Your task to perform on an android device: snooze an email in the gmail app Image 0: 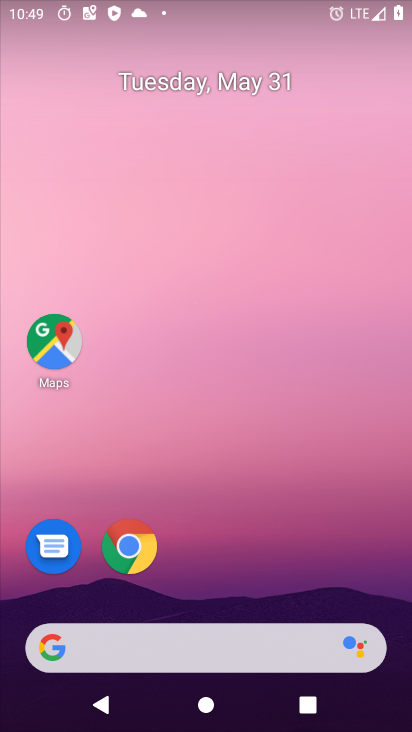
Step 0: drag from (253, 557) to (233, 292)
Your task to perform on an android device: snooze an email in the gmail app Image 1: 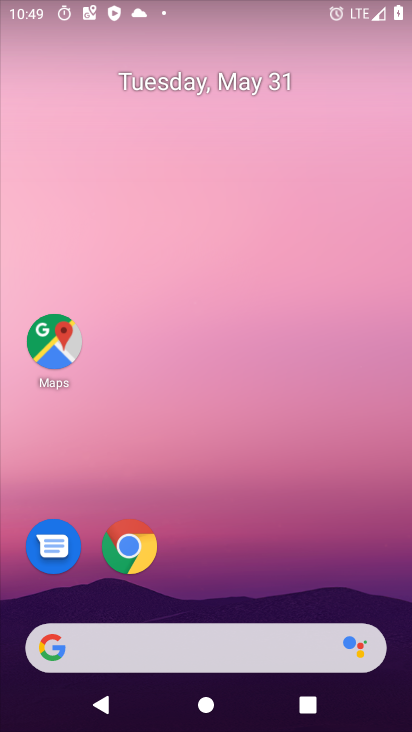
Step 1: drag from (310, 551) to (360, 134)
Your task to perform on an android device: snooze an email in the gmail app Image 2: 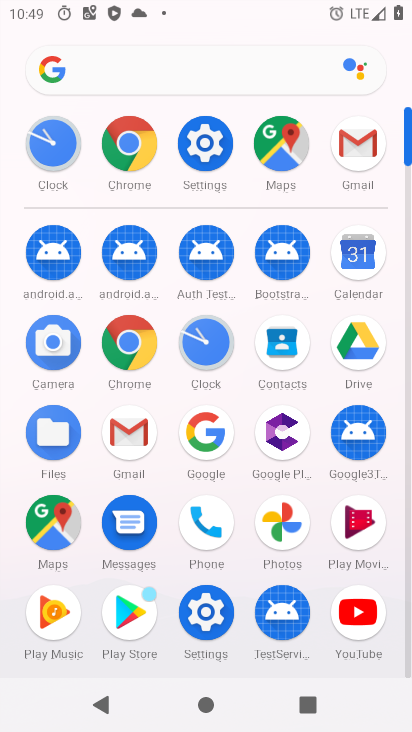
Step 2: click (357, 151)
Your task to perform on an android device: snooze an email in the gmail app Image 3: 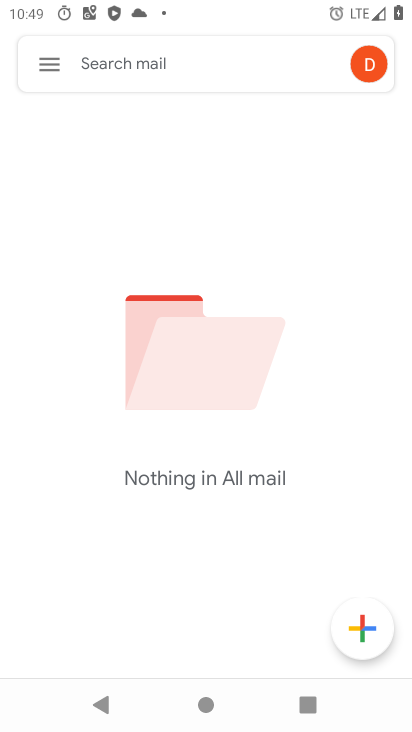
Step 3: click (62, 57)
Your task to perform on an android device: snooze an email in the gmail app Image 4: 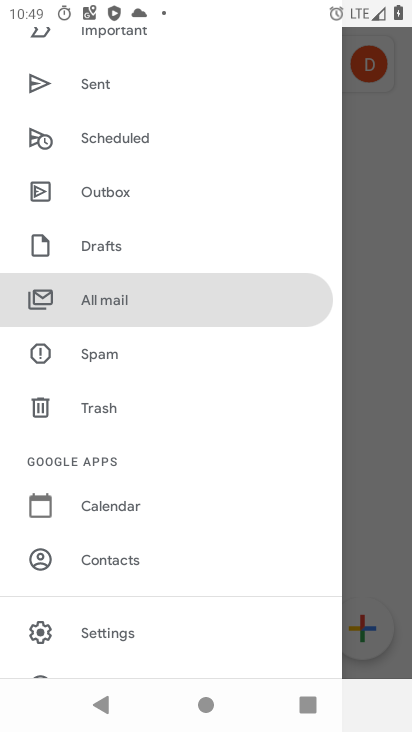
Step 4: drag from (133, 73) to (115, 505)
Your task to perform on an android device: snooze an email in the gmail app Image 5: 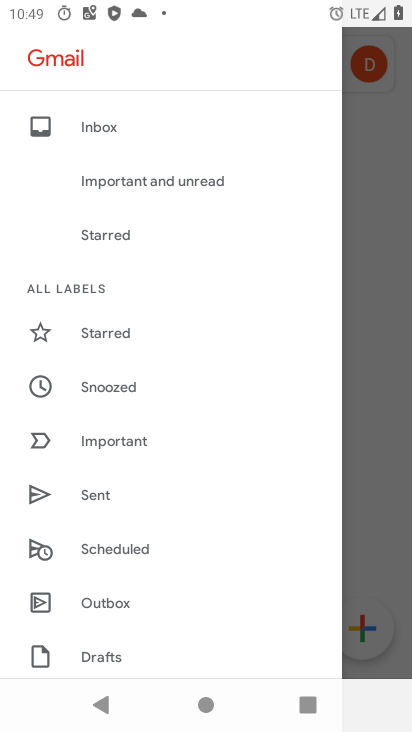
Step 5: click (97, 389)
Your task to perform on an android device: snooze an email in the gmail app Image 6: 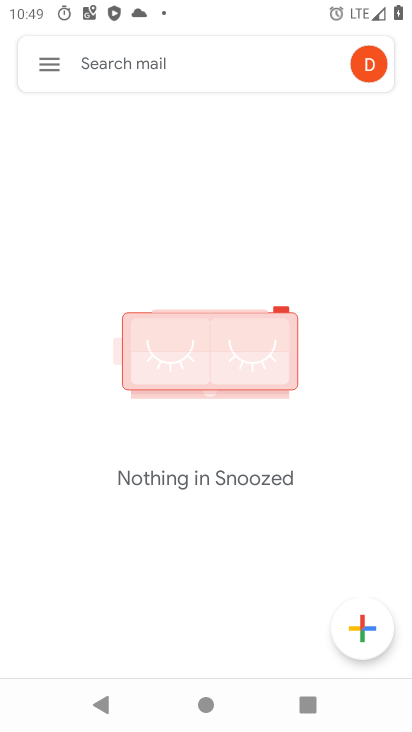
Step 6: task complete